Your task to perform on an android device: turn off airplane mode Image 0: 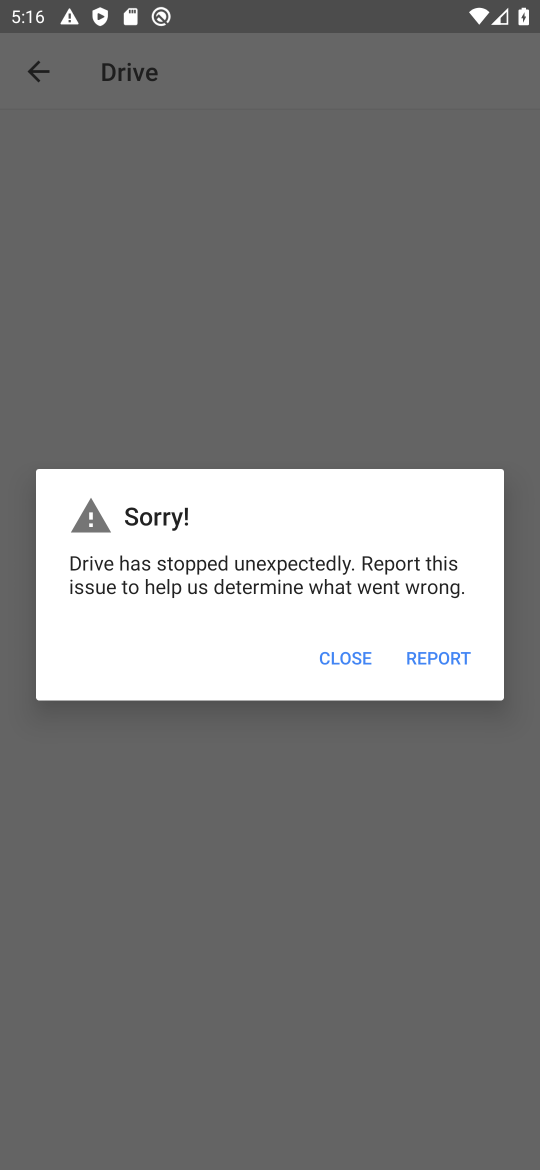
Step 0: press home button
Your task to perform on an android device: turn off airplane mode Image 1: 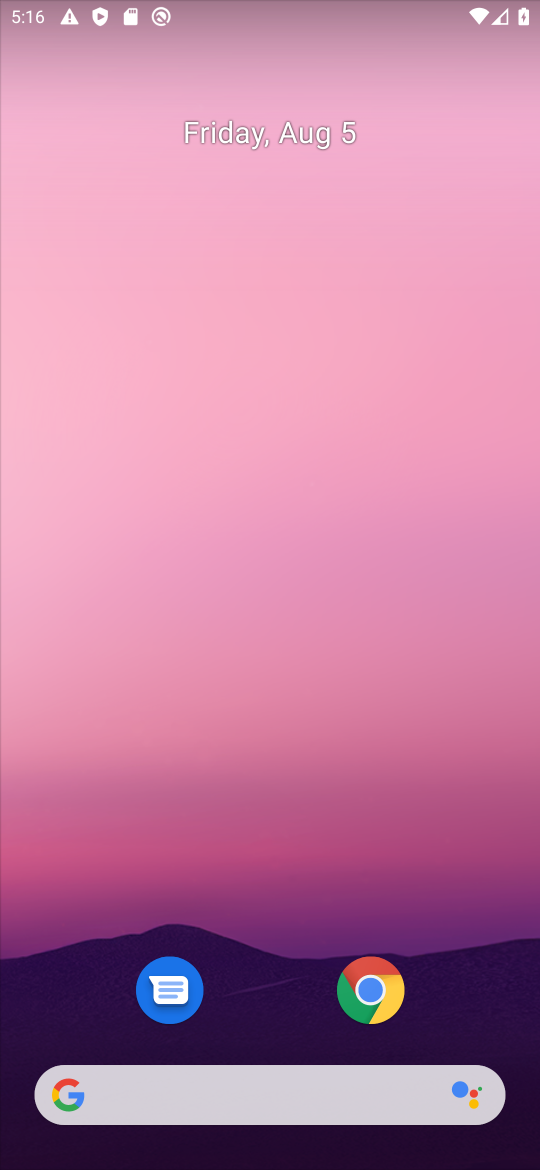
Step 1: drag from (131, 1020) to (177, 434)
Your task to perform on an android device: turn off airplane mode Image 2: 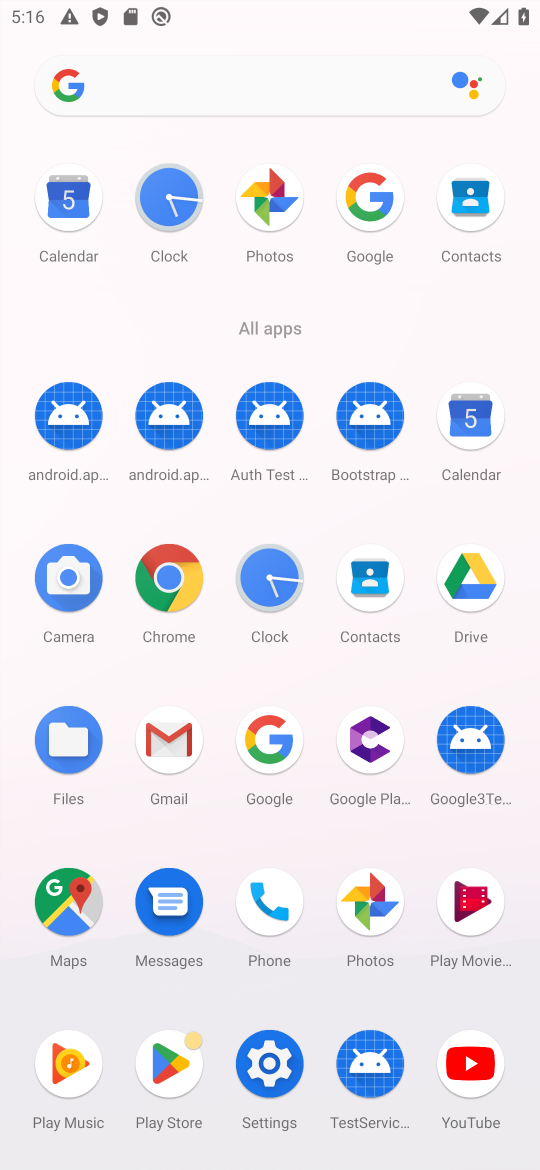
Step 2: click (244, 1066)
Your task to perform on an android device: turn off airplane mode Image 3: 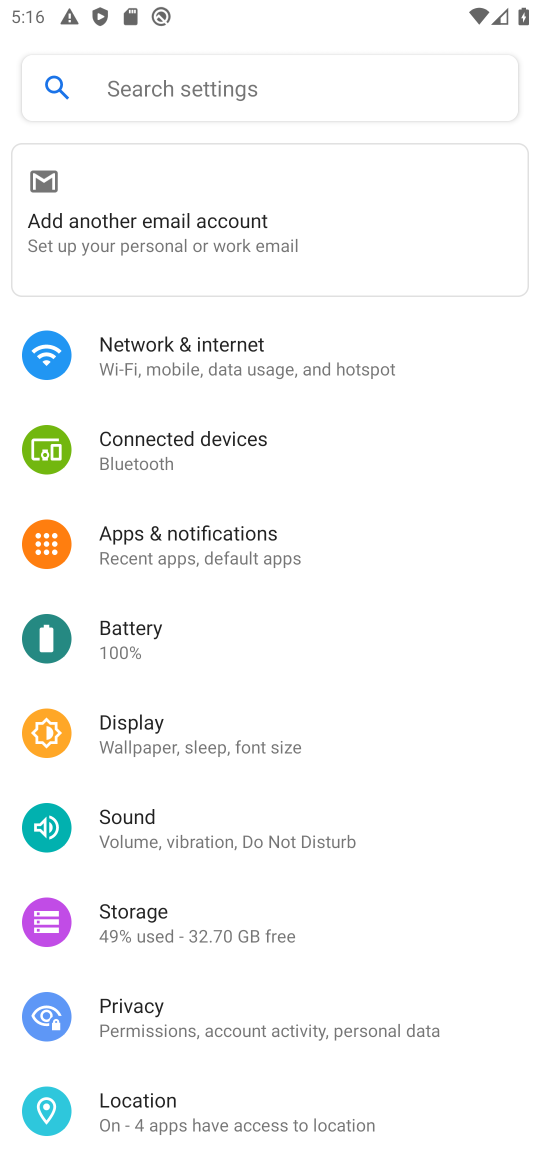
Step 3: click (198, 366)
Your task to perform on an android device: turn off airplane mode Image 4: 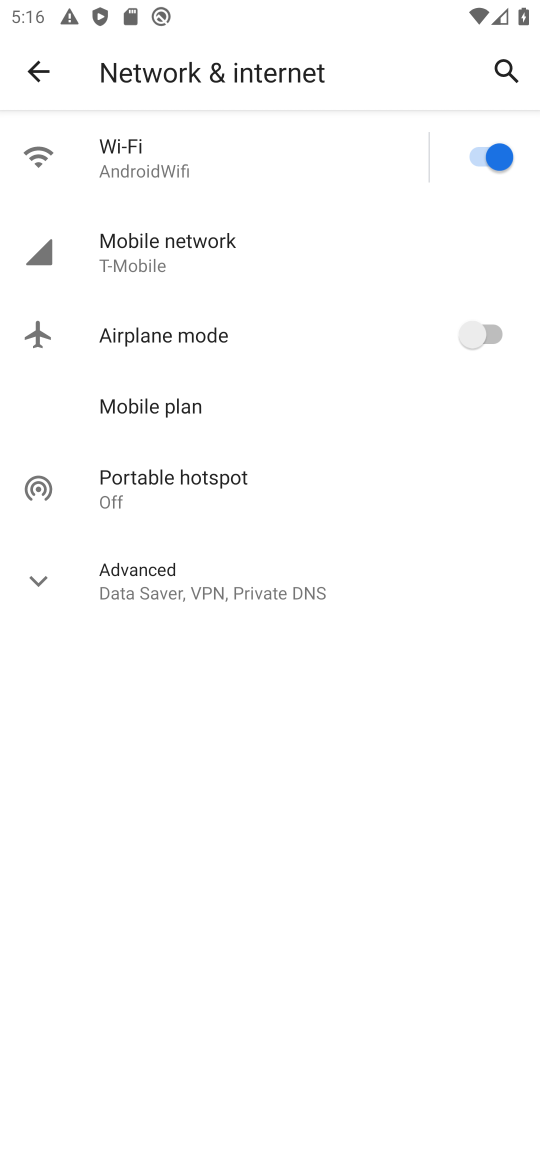
Step 4: task complete